Your task to perform on an android device: turn off javascript in the chrome app Image 0: 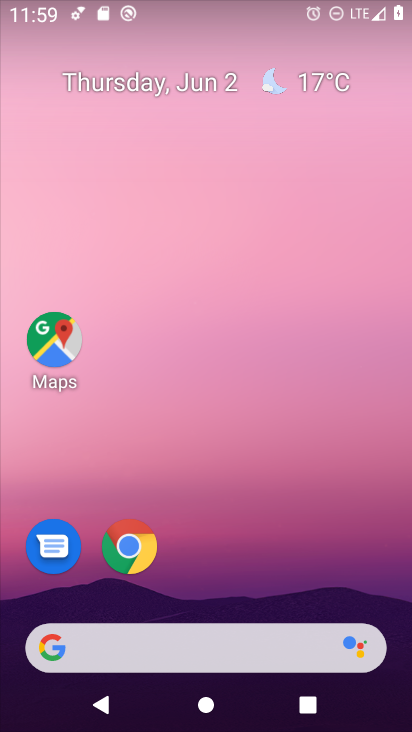
Step 0: click (197, 22)
Your task to perform on an android device: turn off javascript in the chrome app Image 1: 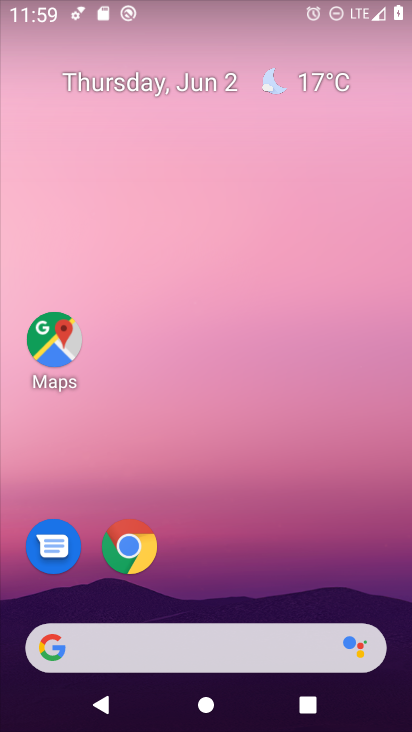
Step 1: drag from (266, 390) to (206, 32)
Your task to perform on an android device: turn off javascript in the chrome app Image 2: 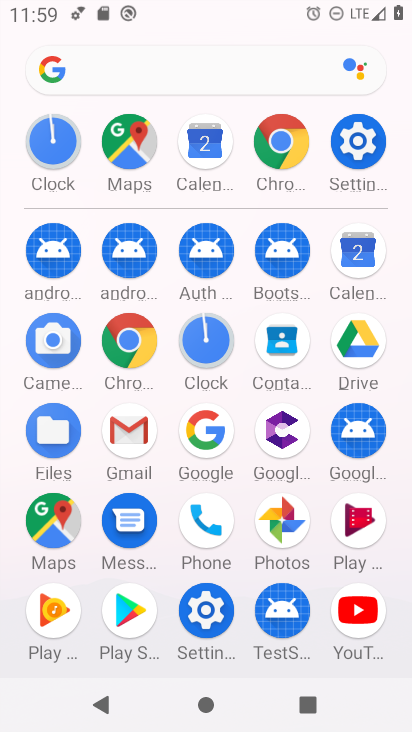
Step 2: click (128, 337)
Your task to perform on an android device: turn off javascript in the chrome app Image 3: 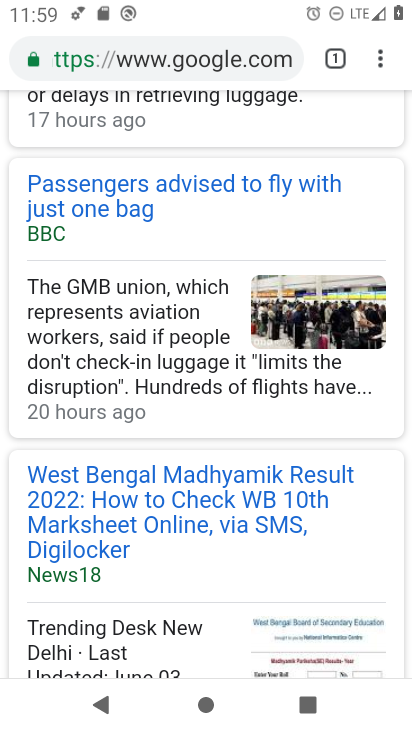
Step 3: drag from (382, 58) to (201, 576)
Your task to perform on an android device: turn off javascript in the chrome app Image 4: 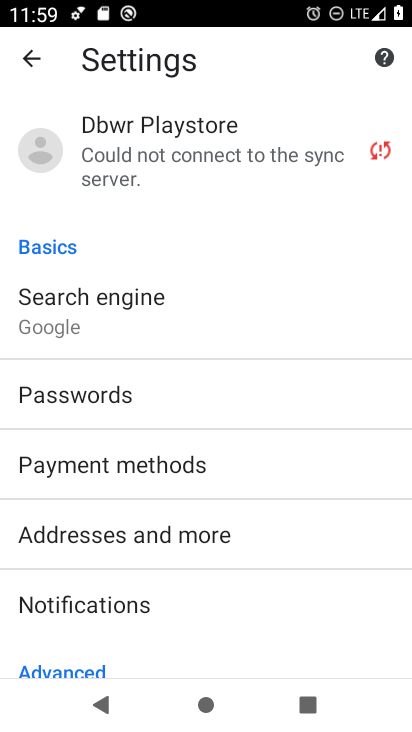
Step 4: drag from (235, 560) to (246, 147)
Your task to perform on an android device: turn off javascript in the chrome app Image 5: 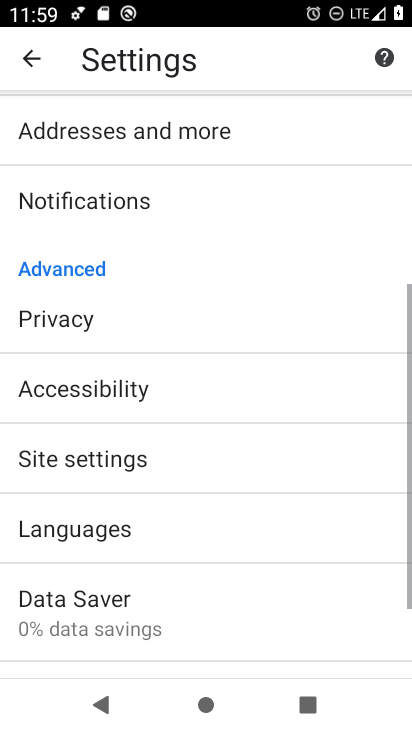
Step 5: drag from (191, 559) to (219, 210)
Your task to perform on an android device: turn off javascript in the chrome app Image 6: 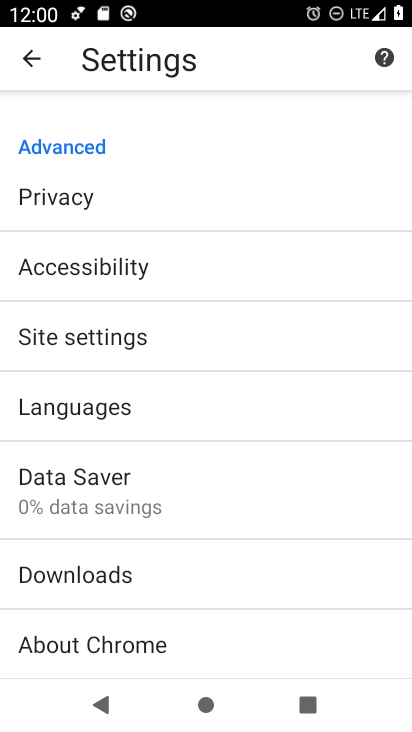
Step 6: click (143, 343)
Your task to perform on an android device: turn off javascript in the chrome app Image 7: 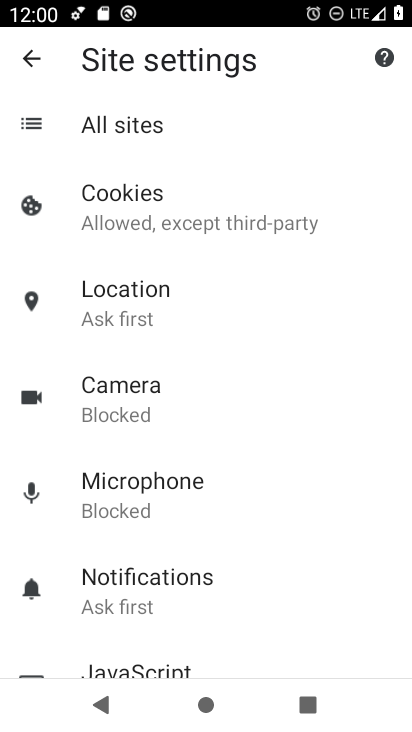
Step 7: drag from (205, 583) to (239, 179)
Your task to perform on an android device: turn off javascript in the chrome app Image 8: 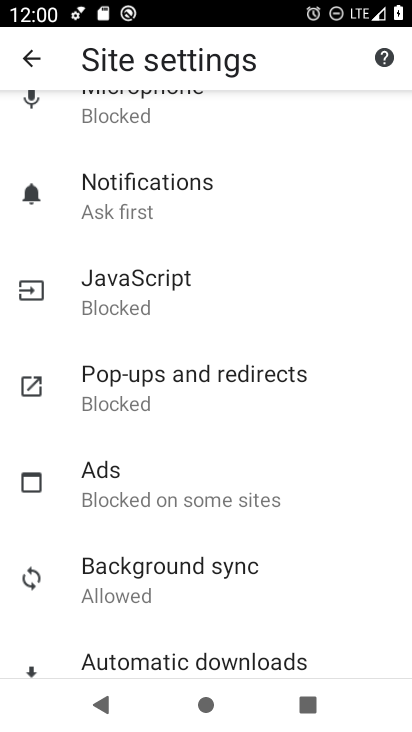
Step 8: click (179, 279)
Your task to perform on an android device: turn off javascript in the chrome app Image 9: 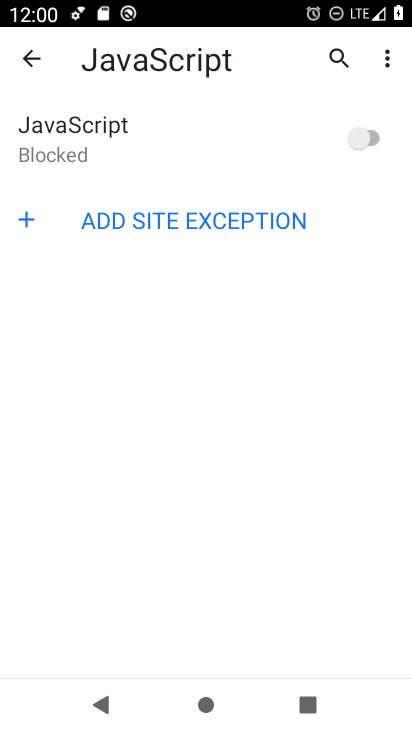
Step 9: task complete